Your task to perform on an android device: open chrome privacy settings Image 0: 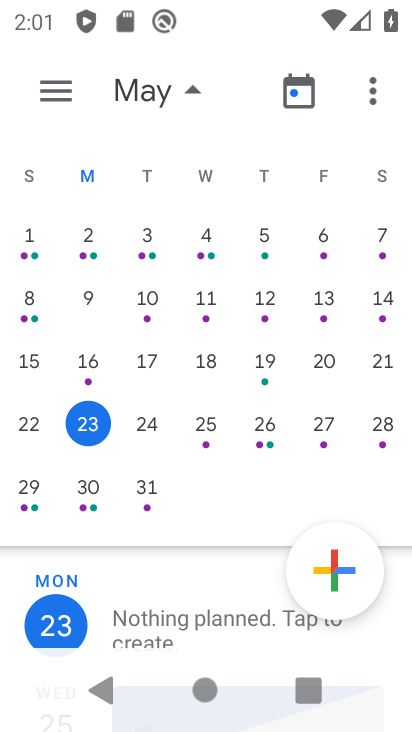
Step 0: press home button
Your task to perform on an android device: open chrome privacy settings Image 1: 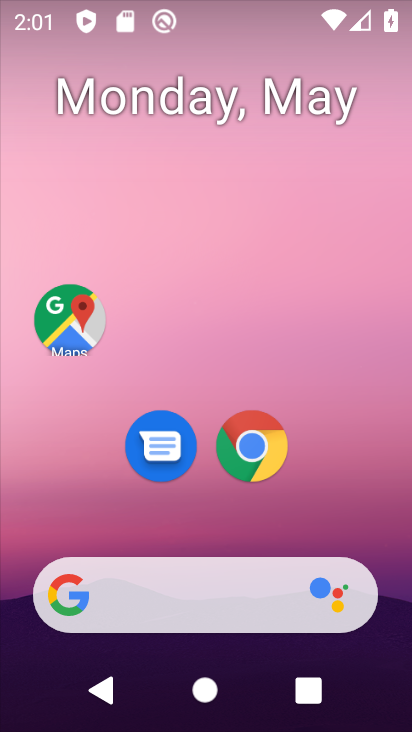
Step 1: drag from (344, 529) to (358, 164)
Your task to perform on an android device: open chrome privacy settings Image 2: 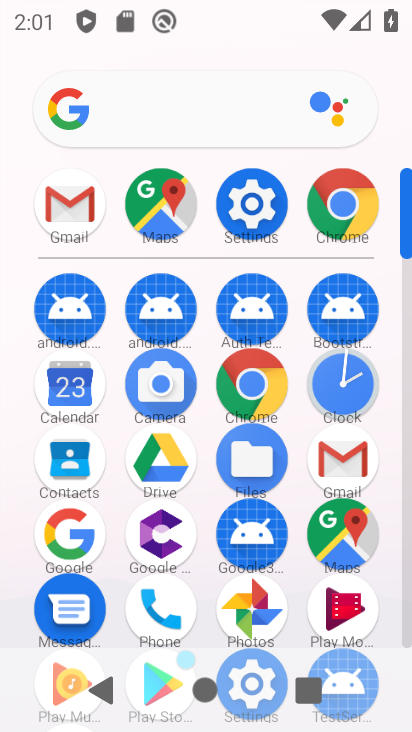
Step 2: click (253, 217)
Your task to perform on an android device: open chrome privacy settings Image 3: 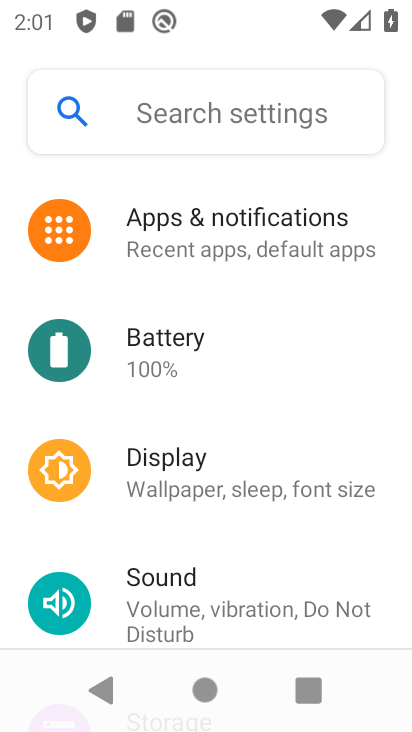
Step 3: press home button
Your task to perform on an android device: open chrome privacy settings Image 4: 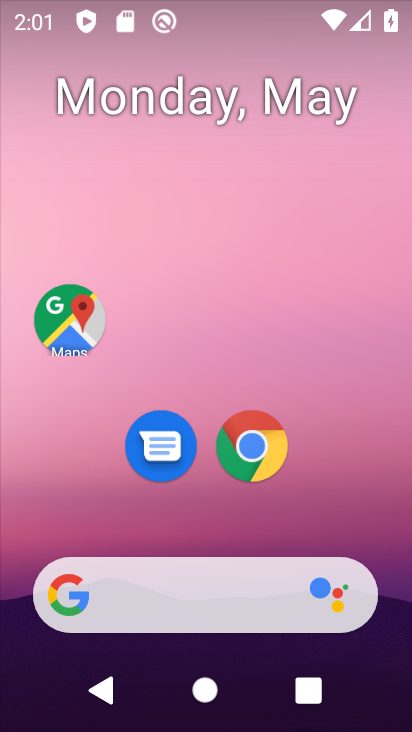
Step 4: click (257, 415)
Your task to perform on an android device: open chrome privacy settings Image 5: 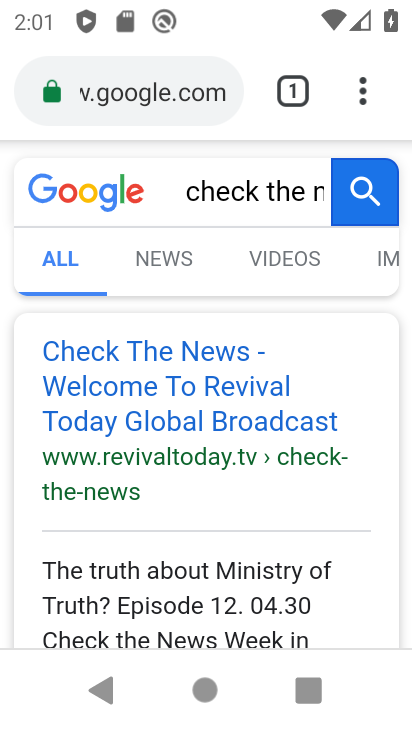
Step 5: drag from (358, 86) to (191, 463)
Your task to perform on an android device: open chrome privacy settings Image 6: 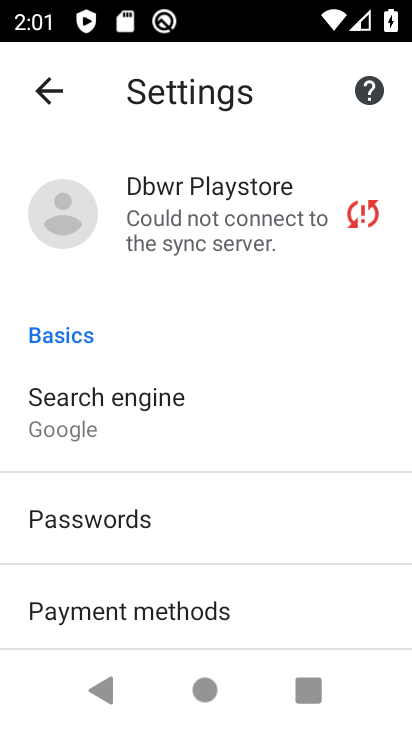
Step 6: drag from (182, 569) to (204, 265)
Your task to perform on an android device: open chrome privacy settings Image 7: 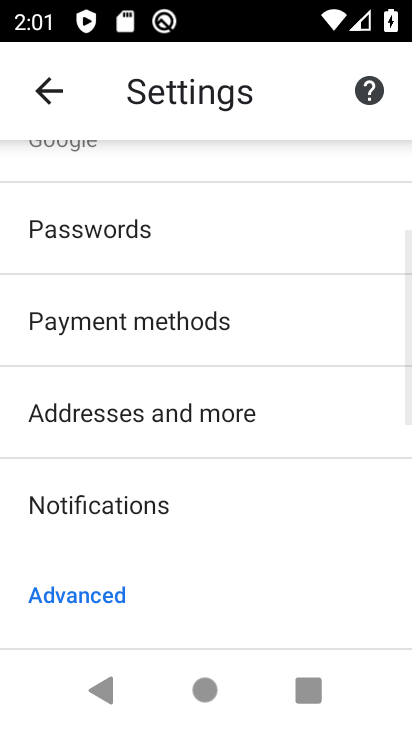
Step 7: drag from (216, 575) to (263, 267)
Your task to perform on an android device: open chrome privacy settings Image 8: 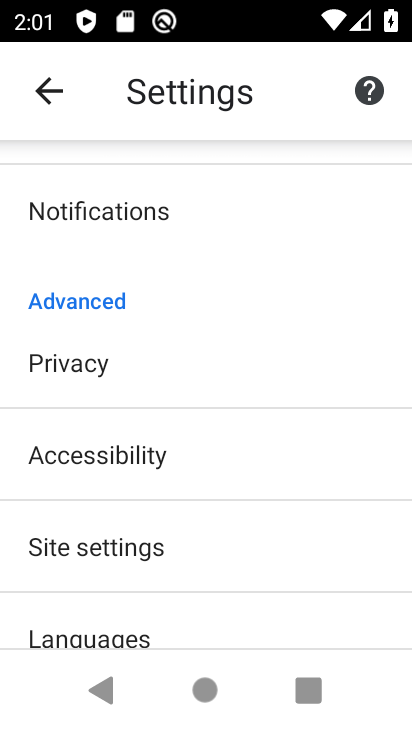
Step 8: click (145, 373)
Your task to perform on an android device: open chrome privacy settings Image 9: 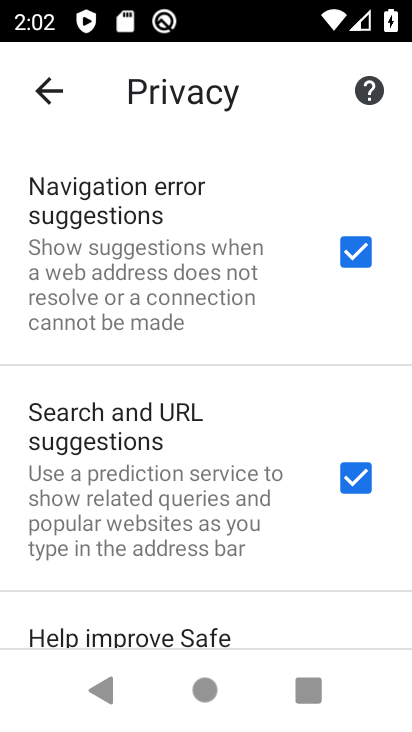
Step 9: task complete